Your task to perform on an android device: Search for the best 4k TVs Image 0: 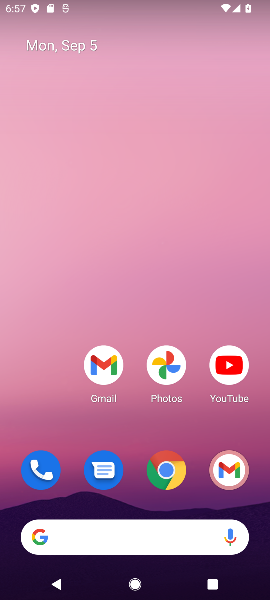
Step 0: click (108, 536)
Your task to perform on an android device: Search for the best 4k TVs Image 1: 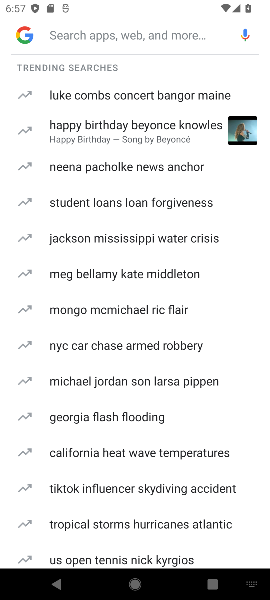
Step 1: type "best 4k tv"
Your task to perform on an android device: Search for the best 4k TVs Image 2: 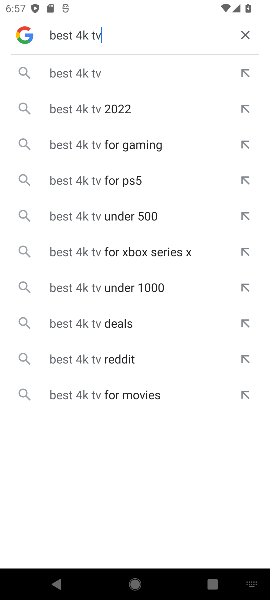
Step 2: click (68, 71)
Your task to perform on an android device: Search for the best 4k TVs Image 3: 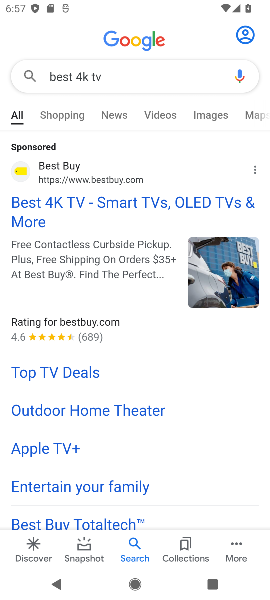
Step 3: click (102, 198)
Your task to perform on an android device: Search for the best 4k TVs Image 4: 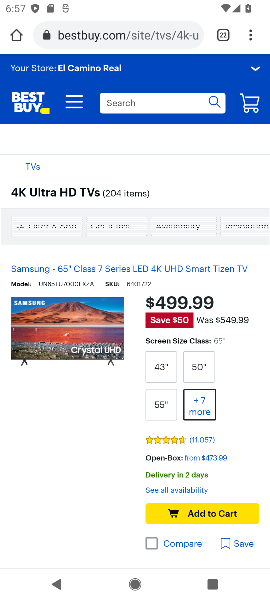
Step 4: task complete